Your task to perform on an android device: open chrome and create a bookmark for the current page Image 0: 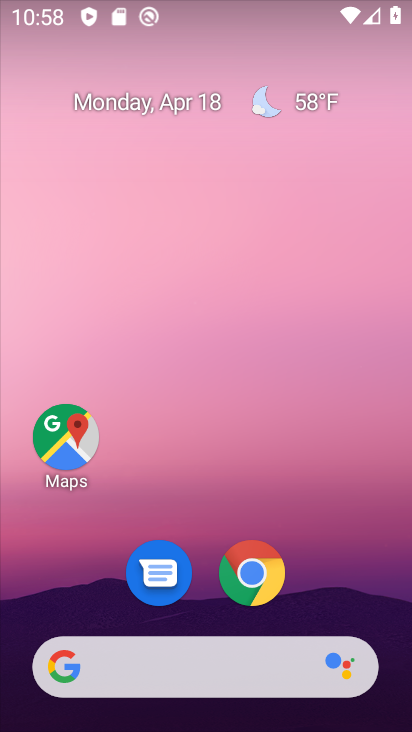
Step 0: drag from (368, 587) to (352, 99)
Your task to perform on an android device: open chrome and create a bookmark for the current page Image 1: 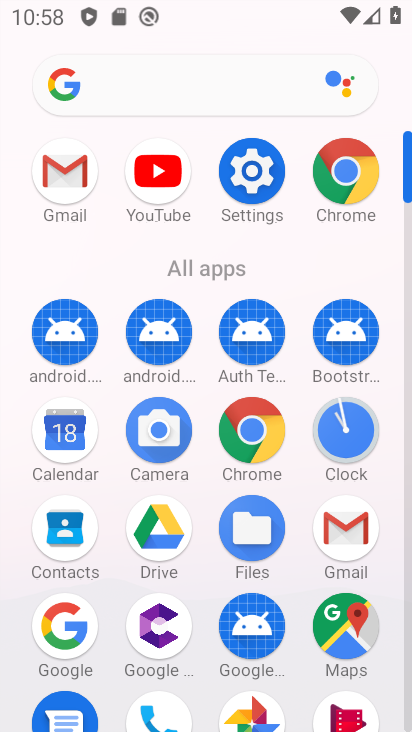
Step 1: click (333, 169)
Your task to perform on an android device: open chrome and create a bookmark for the current page Image 2: 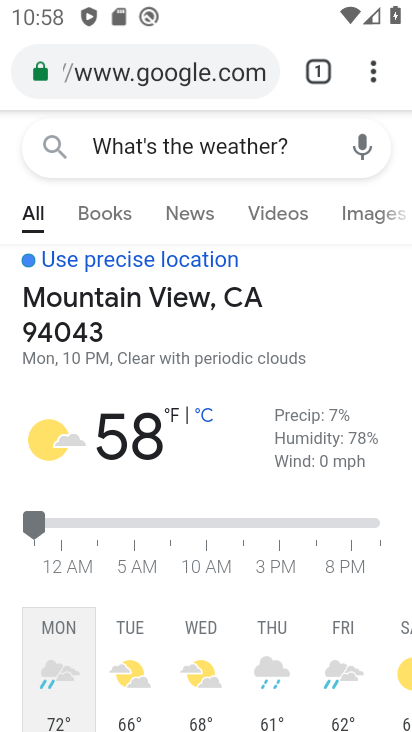
Step 2: task complete